Your task to perform on an android device: Open Google Chrome Image 0: 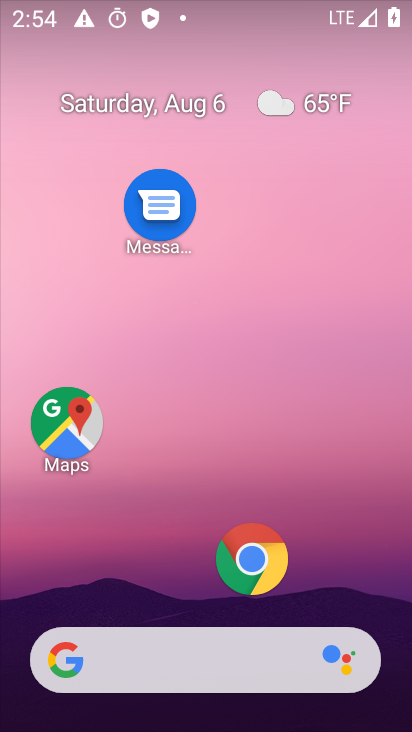
Step 0: click (252, 556)
Your task to perform on an android device: Open Google Chrome Image 1: 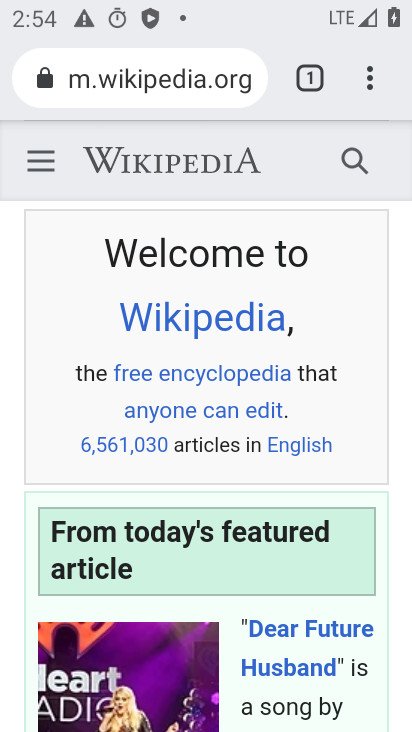
Step 1: task complete